Your task to perform on an android device: turn off wifi Image 0: 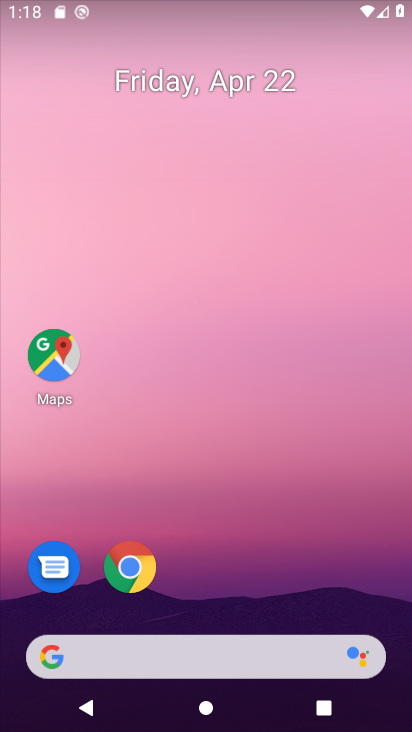
Step 0: drag from (360, 461) to (330, 126)
Your task to perform on an android device: turn off wifi Image 1: 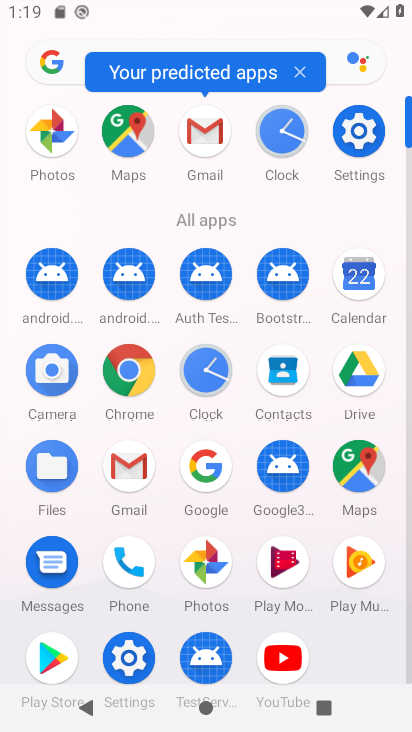
Step 1: click (124, 654)
Your task to perform on an android device: turn off wifi Image 2: 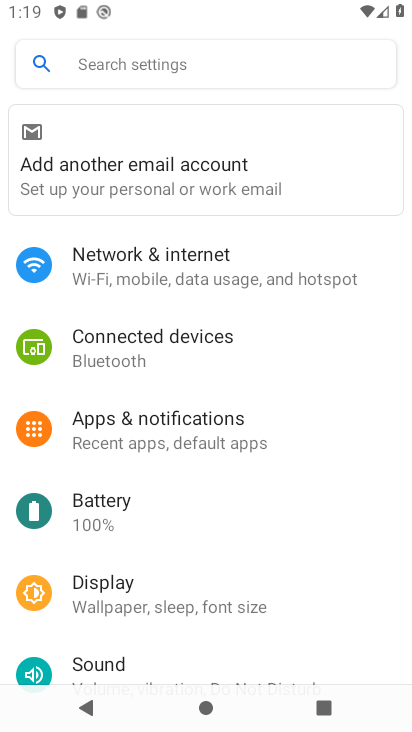
Step 2: click (164, 262)
Your task to perform on an android device: turn off wifi Image 3: 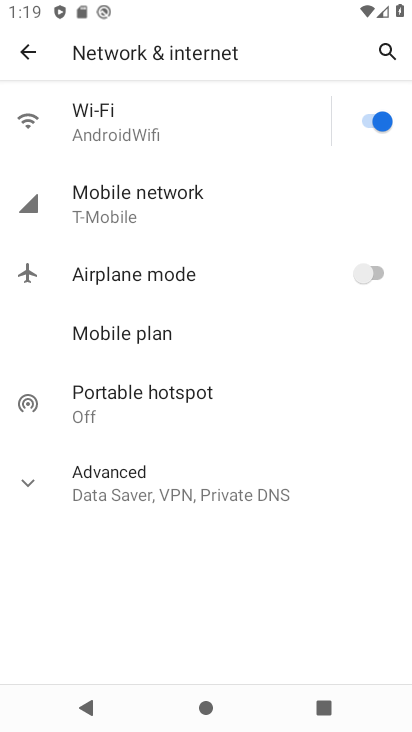
Step 3: click (367, 118)
Your task to perform on an android device: turn off wifi Image 4: 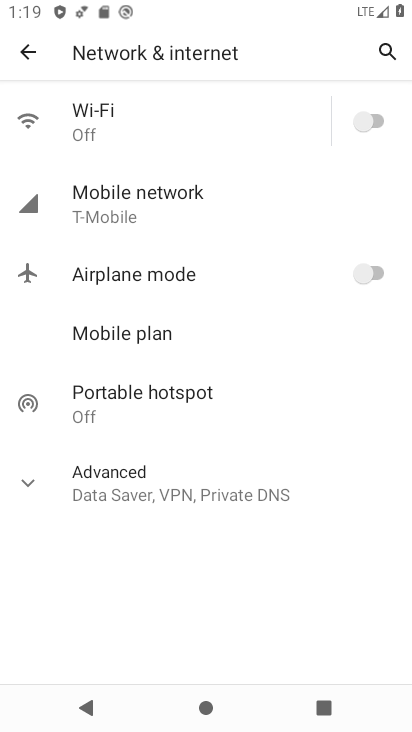
Step 4: task complete